Your task to perform on an android device: Open the phone app and click the voicemail tab. Image 0: 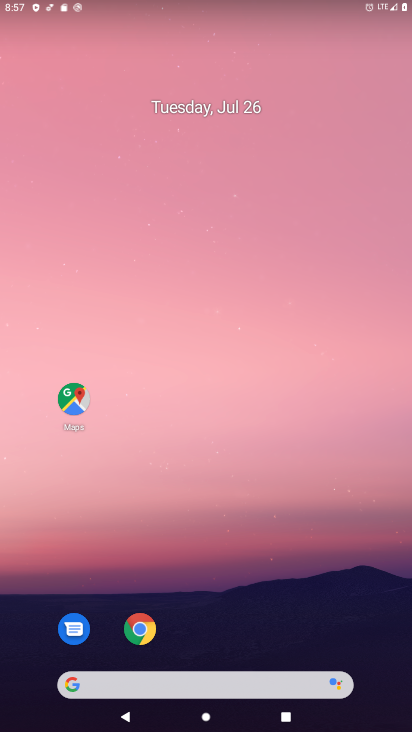
Step 0: drag from (218, 650) to (148, 67)
Your task to perform on an android device: Open the phone app and click the voicemail tab. Image 1: 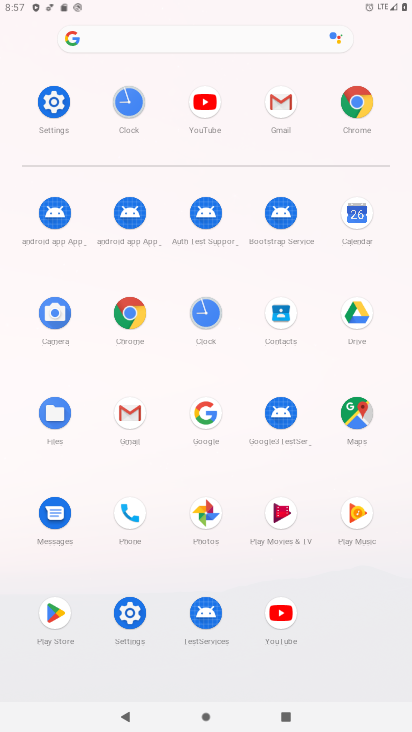
Step 1: click (130, 519)
Your task to perform on an android device: Open the phone app and click the voicemail tab. Image 2: 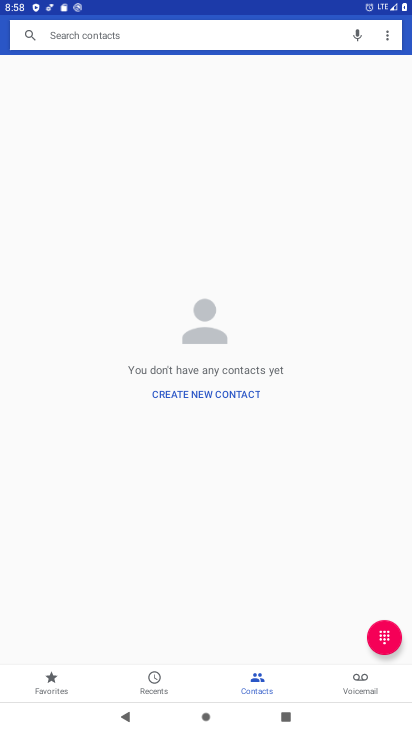
Step 2: click (362, 683)
Your task to perform on an android device: Open the phone app and click the voicemail tab. Image 3: 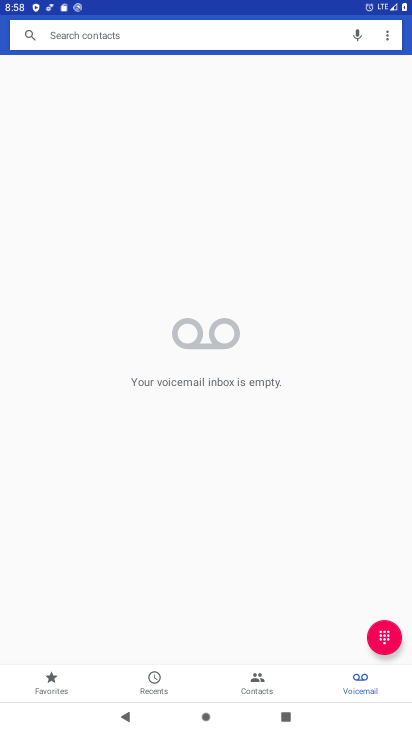
Step 3: task complete